Your task to perform on an android device: Open calendar and show me the third week of next month Image 0: 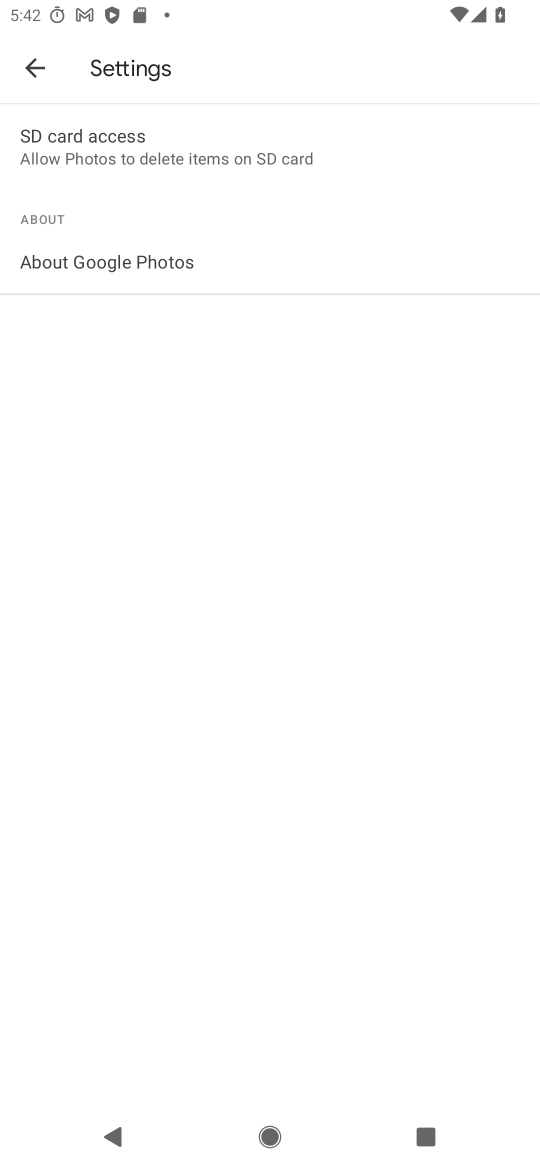
Step 0: press home button
Your task to perform on an android device: Open calendar and show me the third week of next month Image 1: 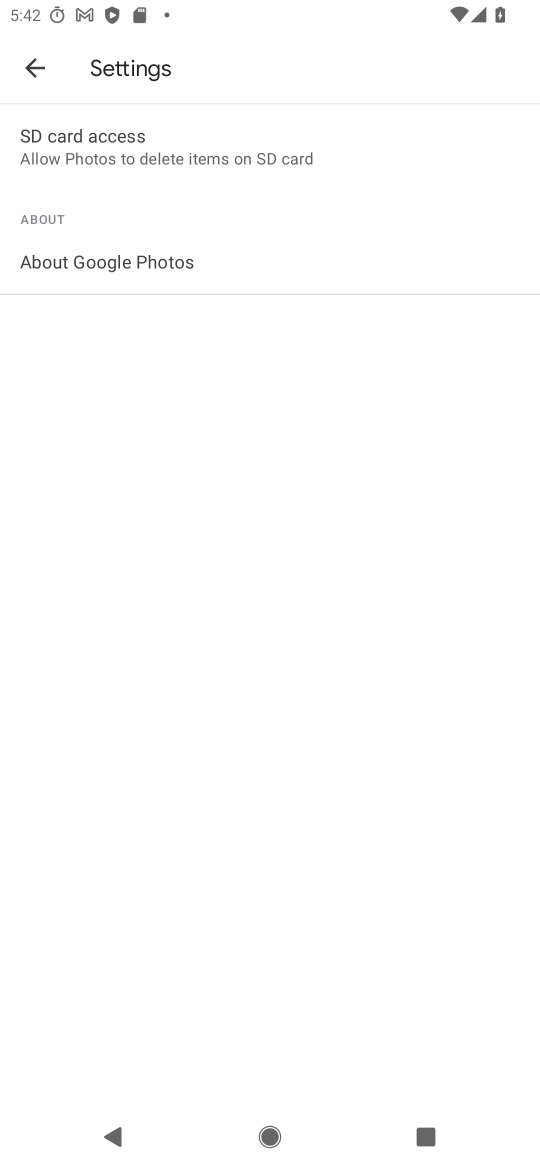
Step 1: press home button
Your task to perform on an android device: Open calendar and show me the third week of next month Image 2: 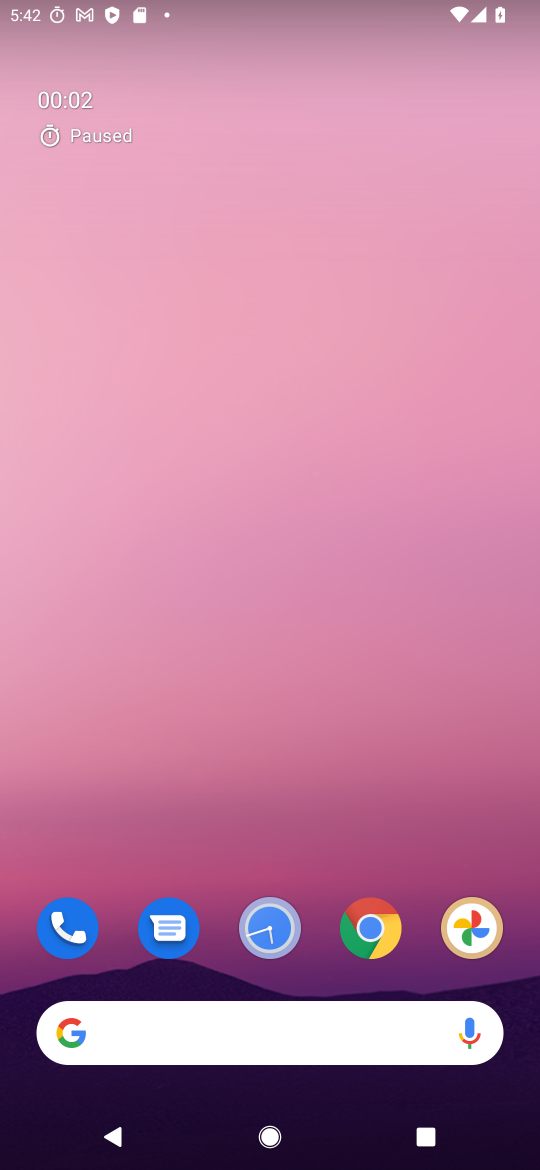
Step 2: drag from (352, 858) to (321, 237)
Your task to perform on an android device: Open calendar and show me the third week of next month Image 3: 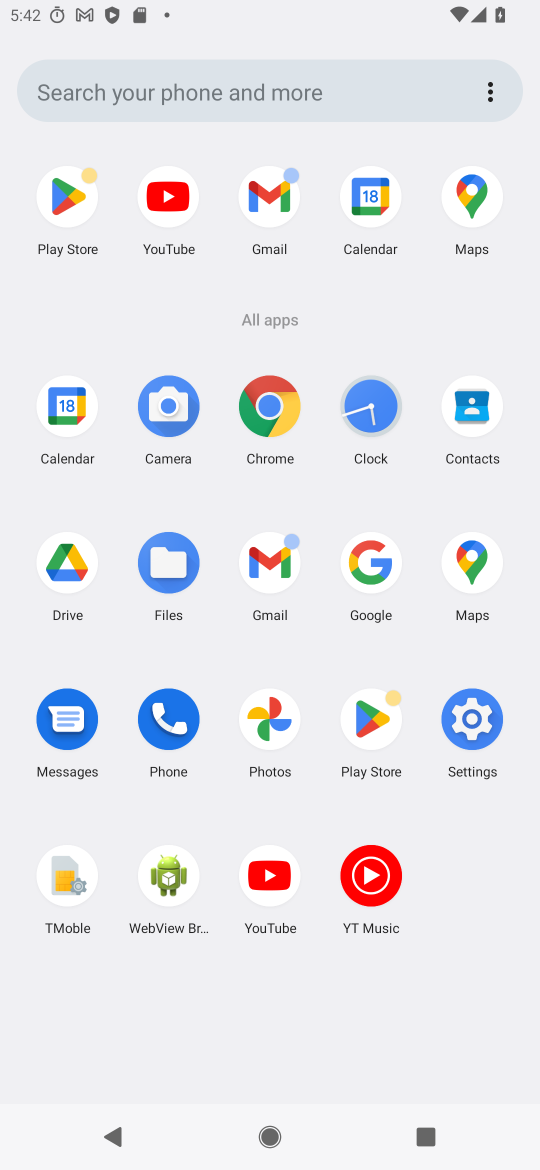
Step 3: click (57, 396)
Your task to perform on an android device: Open calendar and show me the third week of next month Image 4: 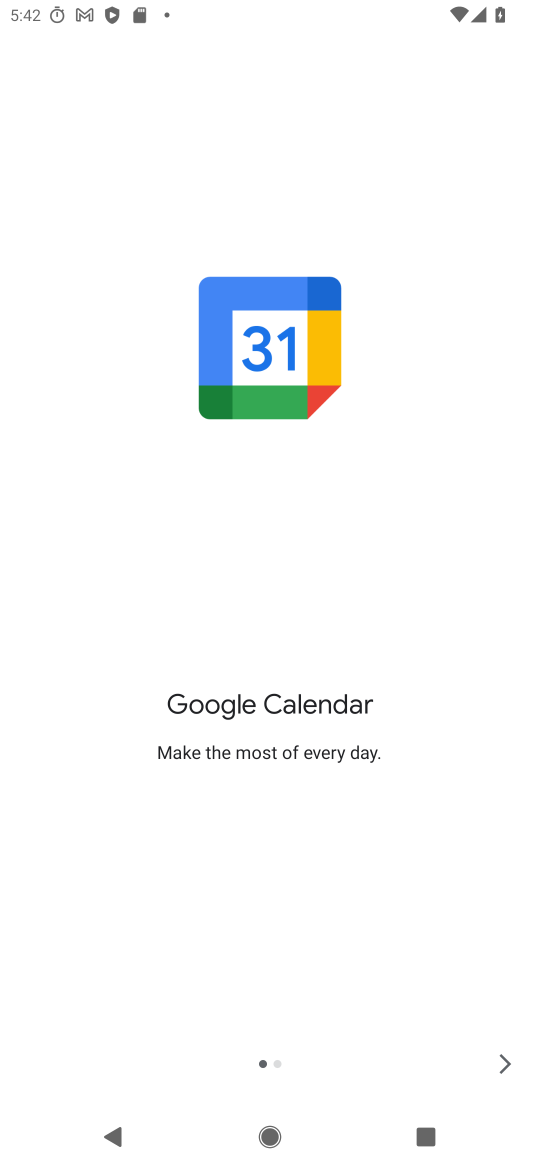
Step 4: click (512, 1054)
Your task to perform on an android device: Open calendar and show me the third week of next month Image 5: 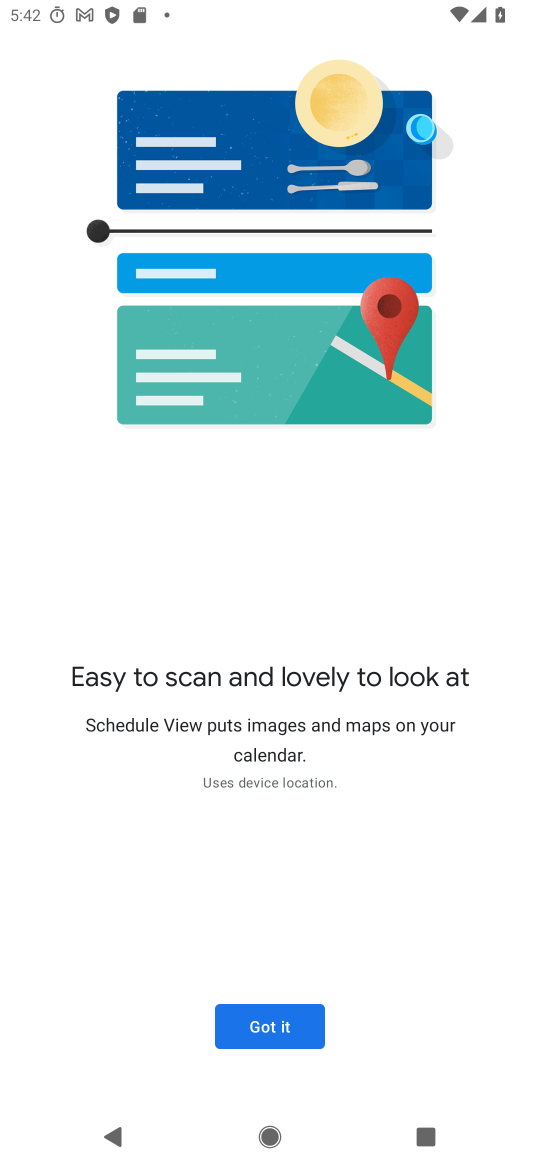
Step 5: click (273, 1034)
Your task to perform on an android device: Open calendar and show me the third week of next month Image 6: 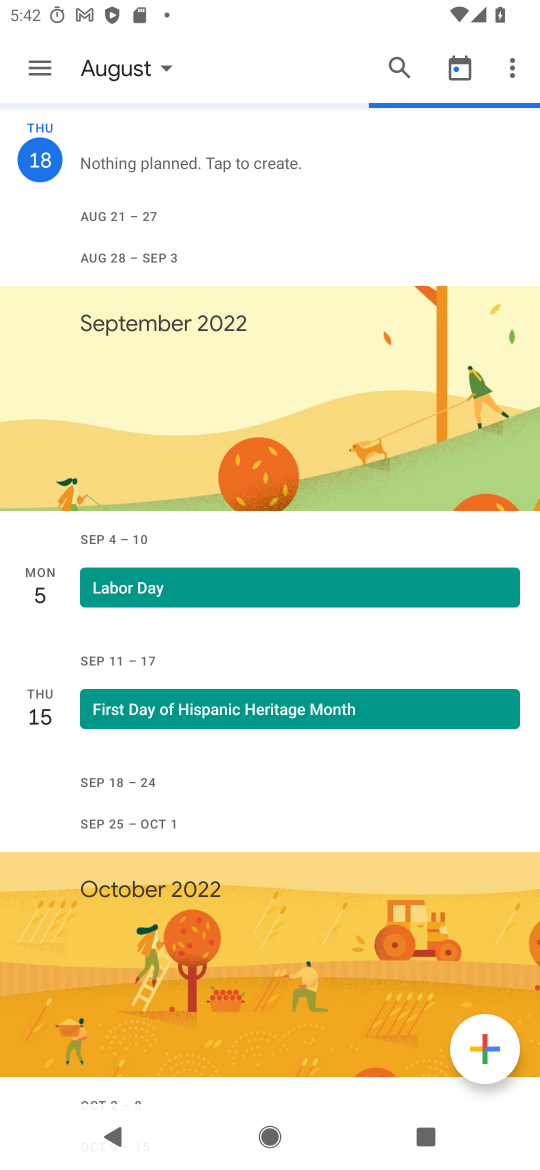
Step 6: click (103, 67)
Your task to perform on an android device: Open calendar and show me the third week of next month Image 7: 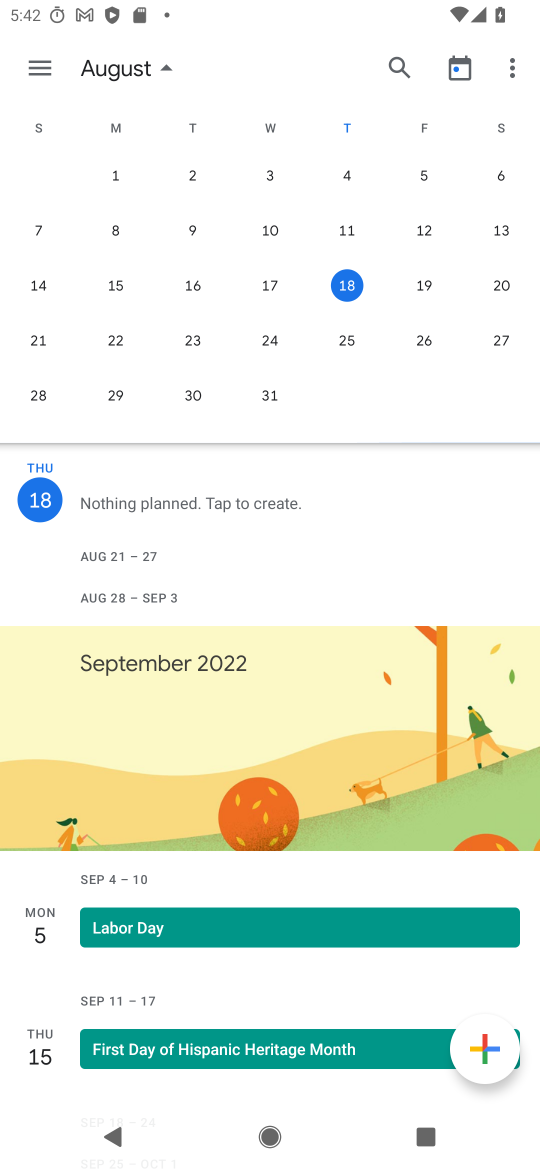
Step 7: drag from (508, 334) to (65, 317)
Your task to perform on an android device: Open calendar and show me the third week of next month Image 8: 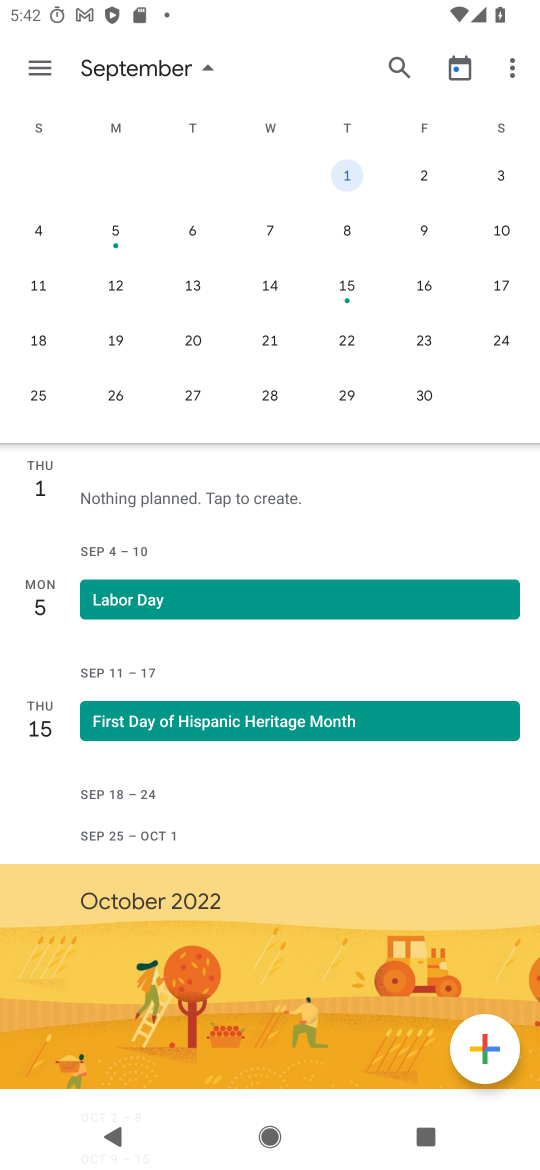
Step 8: click (113, 339)
Your task to perform on an android device: Open calendar and show me the third week of next month Image 9: 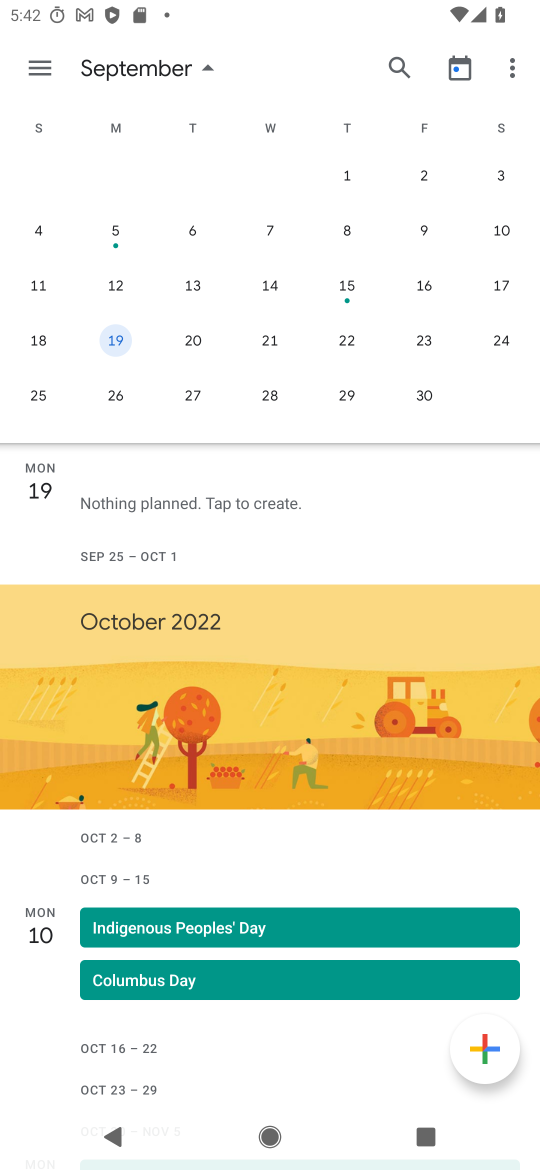
Step 9: click (47, 72)
Your task to perform on an android device: Open calendar and show me the third week of next month Image 10: 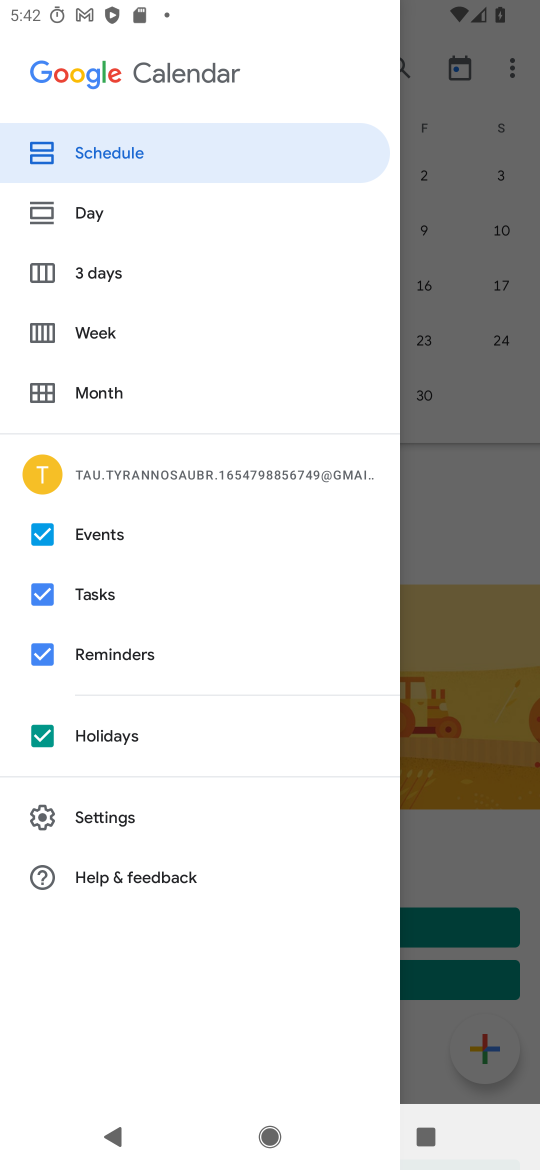
Step 10: click (95, 320)
Your task to perform on an android device: Open calendar and show me the third week of next month Image 11: 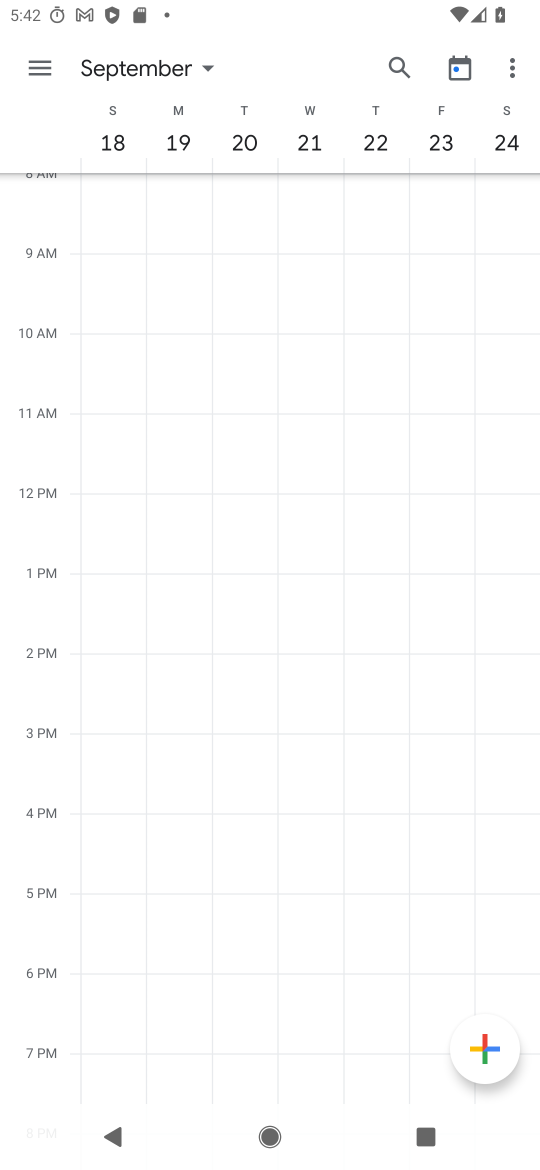
Step 11: task complete